Your task to perform on an android device: Search for logitech g502 on ebay.com, select the first entry, add it to the cart, then select checkout. Image 0: 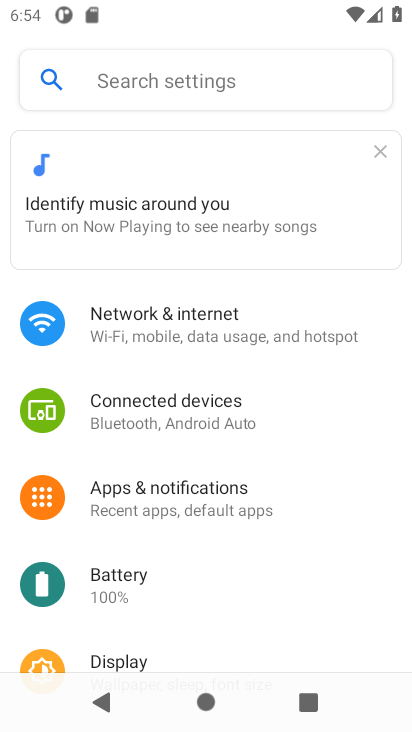
Step 0: press home button
Your task to perform on an android device: Search for logitech g502 on ebay.com, select the first entry, add it to the cart, then select checkout. Image 1: 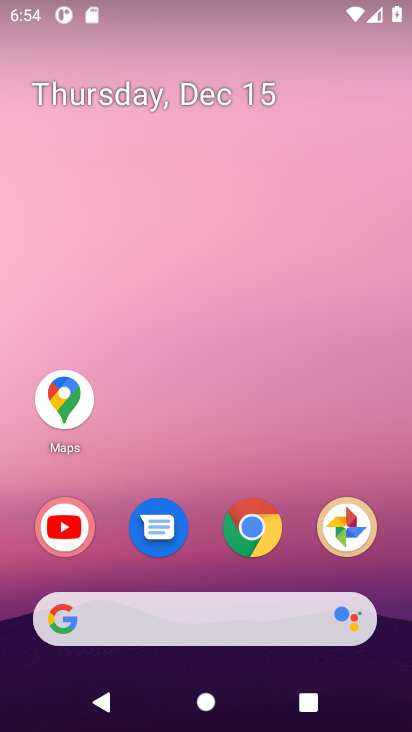
Step 1: click (267, 530)
Your task to perform on an android device: Search for logitech g502 on ebay.com, select the first entry, add it to the cart, then select checkout. Image 2: 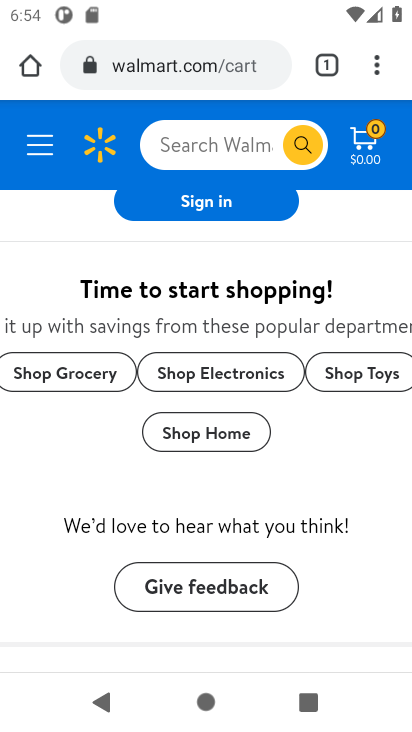
Step 2: click (209, 151)
Your task to perform on an android device: Search for logitech g502 on ebay.com, select the first entry, add it to the cart, then select checkout. Image 3: 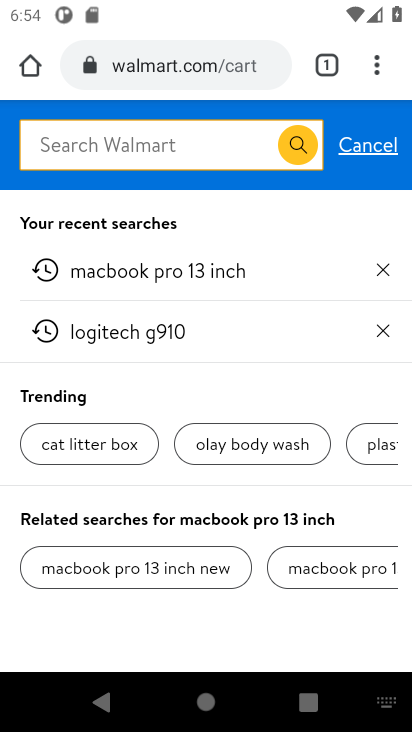
Step 3: click (186, 51)
Your task to perform on an android device: Search for logitech g502 on ebay.com, select the first entry, add it to the cart, then select checkout. Image 4: 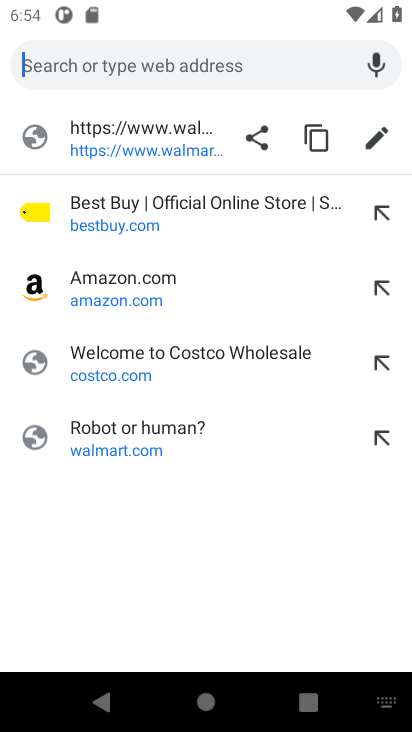
Step 4: type "ebay"
Your task to perform on an android device: Search for logitech g502 on ebay.com, select the first entry, add it to the cart, then select checkout. Image 5: 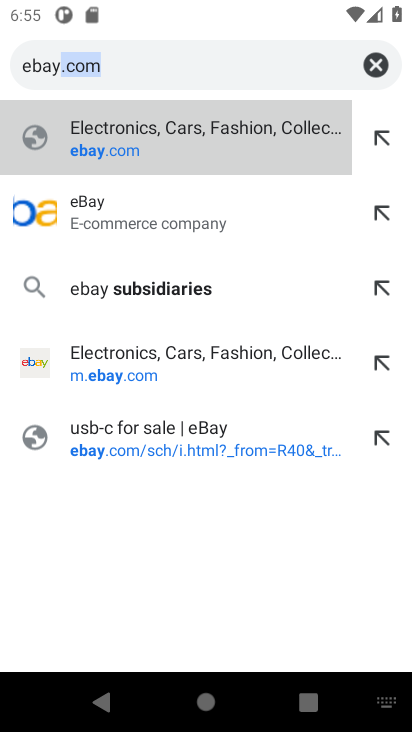
Step 5: click (121, 154)
Your task to perform on an android device: Search for logitech g502 on ebay.com, select the first entry, add it to the cart, then select checkout. Image 6: 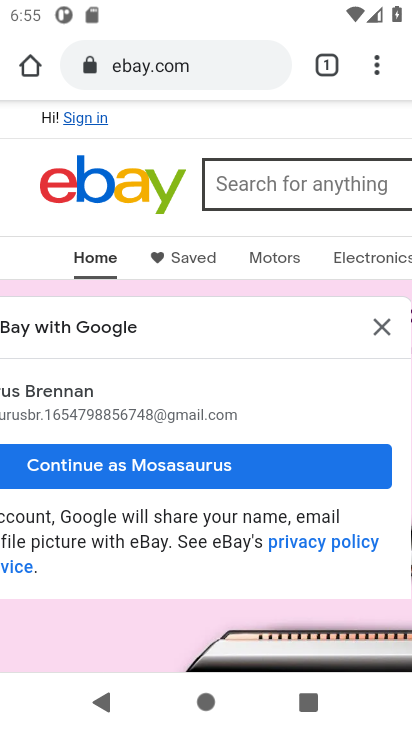
Step 6: click (241, 180)
Your task to perform on an android device: Search for logitech g502 on ebay.com, select the first entry, add it to the cart, then select checkout. Image 7: 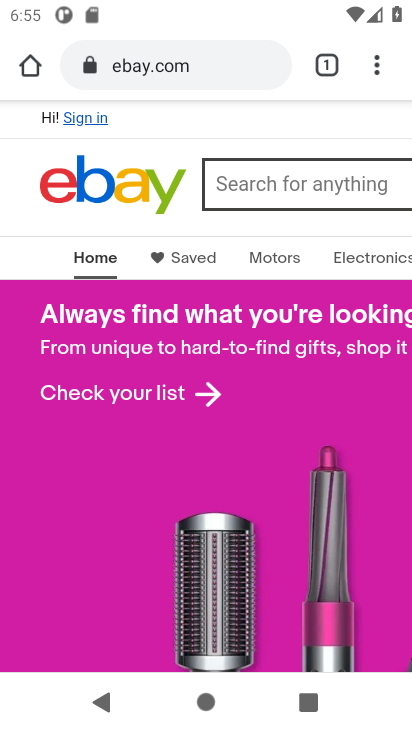
Step 7: type "logitech g502"
Your task to perform on an android device: Search for logitech g502 on ebay.com, select the first entry, add it to the cart, then select checkout. Image 8: 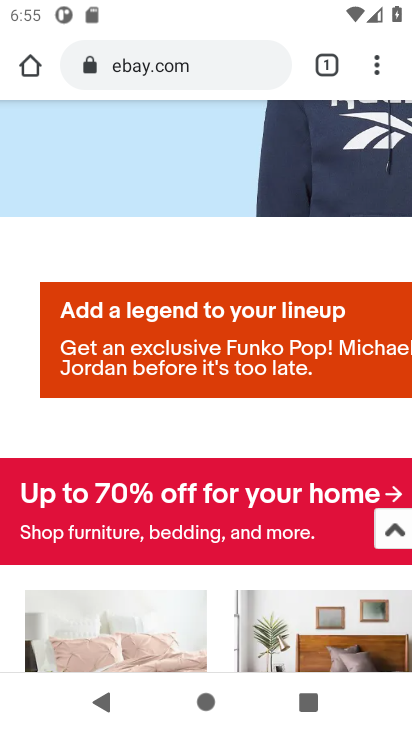
Step 8: drag from (206, 262) to (254, 725)
Your task to perform on an android device: Search for logitech g502 on ebay.com, select the first entry, add it to the cart, then select checkout. Image 9: 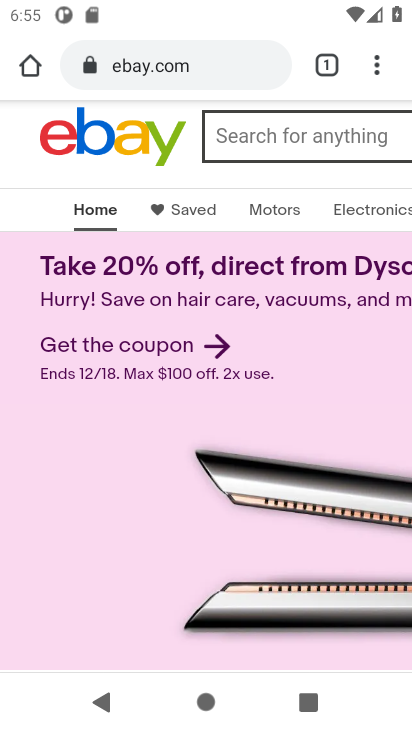
Step 9: click (261, 146)
Your task to perform on an android device: Search for logitech g502 on ebay.com, select the first entry, add it to the cart, then select checkout. Image 10: 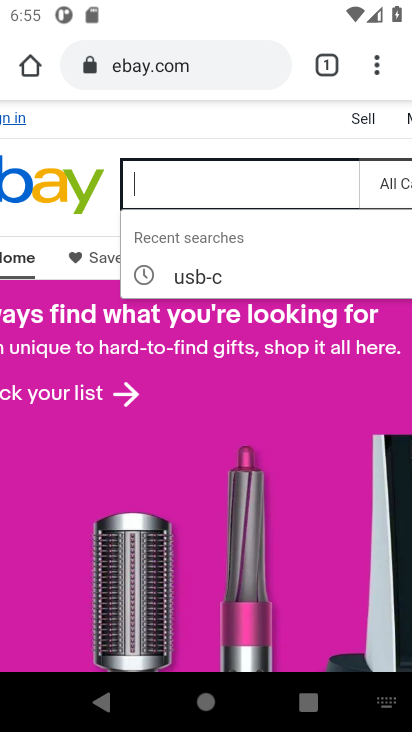
Step 10: type "logitech g502"
Your task to perform on an android device: Search for logitech g502 on ebay.com, select the first entry, add it to the cart, then select checkout. Image 11: 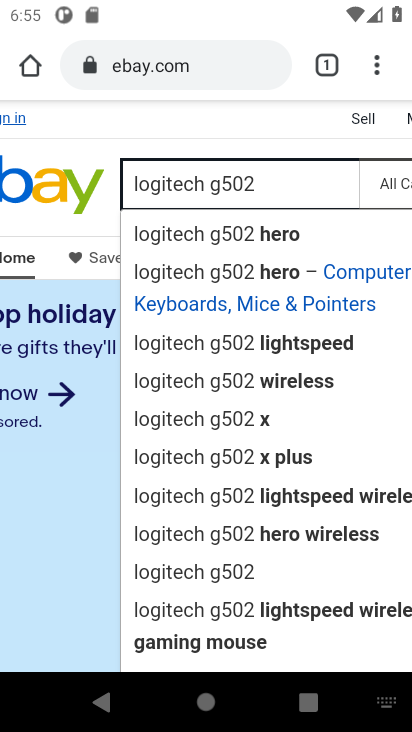
Step 11: click (89, 222)
Your task to perform on an android device: Search for logitech g502 on ebay.com, select the first entry, add it to the cart, then select checkout. Image 12: 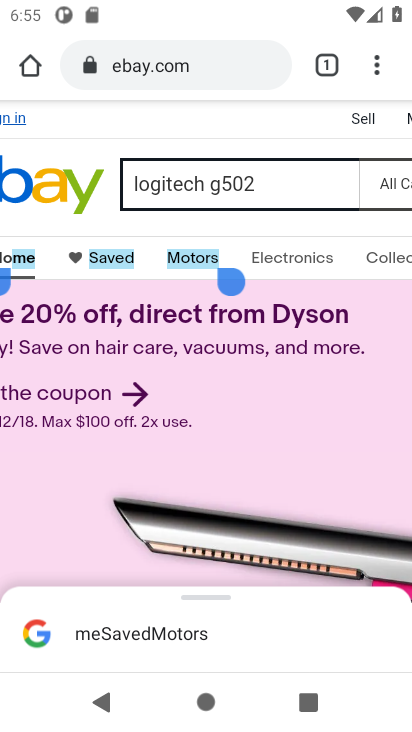
Step 12: drag from (270, 234) to (190, 118)
Your task to perform on an android device: Search for logitech g502 on ebay.com, select the first entry, add it to the cart, then select checkout. Image 13: 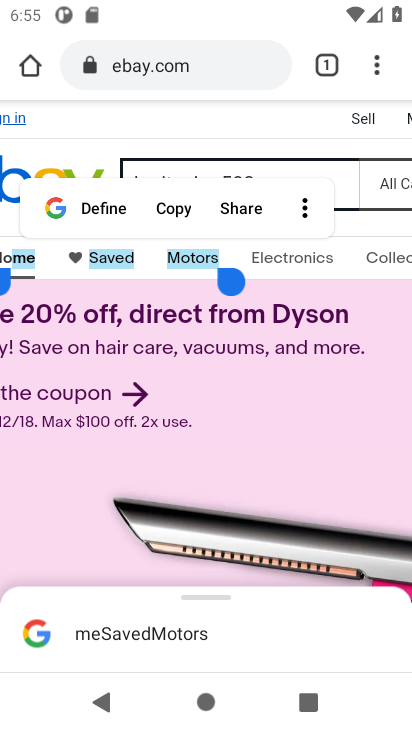
Step 13: click (190, 118)
Your task to perform on an android device: Search for logitech g502 on ebay.com, select the first entry, add it to the cart, then select checkout. Image 14: 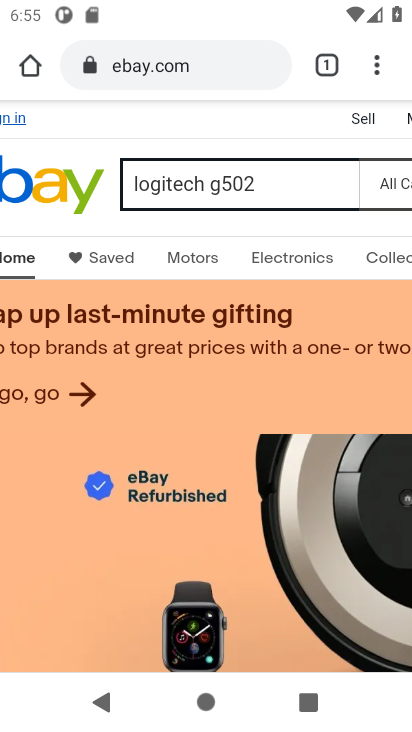
Step 14: click (97, 145)
Your task to perform on an android device: Search for logitech g502 on ebay.com, select the first entry, add it to the cart, then select checkout. Image 15: 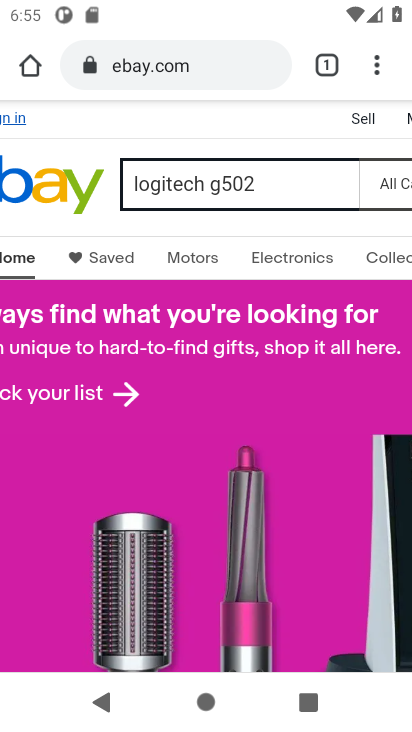
Step 15: drag from (355, 226) to (0, 227)
Your task to perform on an android device: Search for logitech g502 on ebay.com, select the first entry, add it to the cart, then select checkout. Image 16: 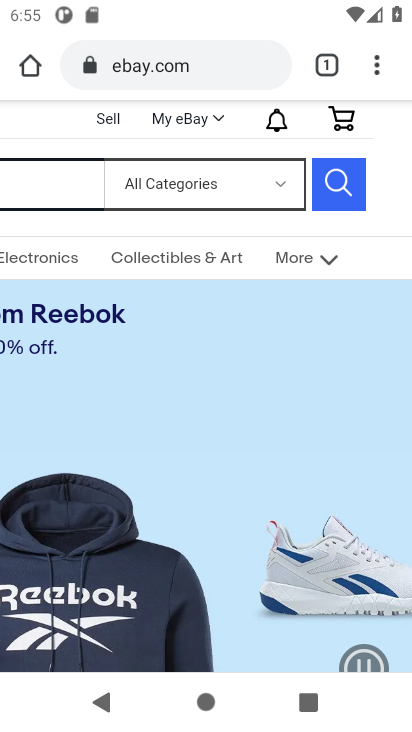
Step 16: click (336, 192)
Your task to perform on an android device: Search for logitech g502 on ebay.com, select the first entry, add it to the cart, then select checkout. Image 17: 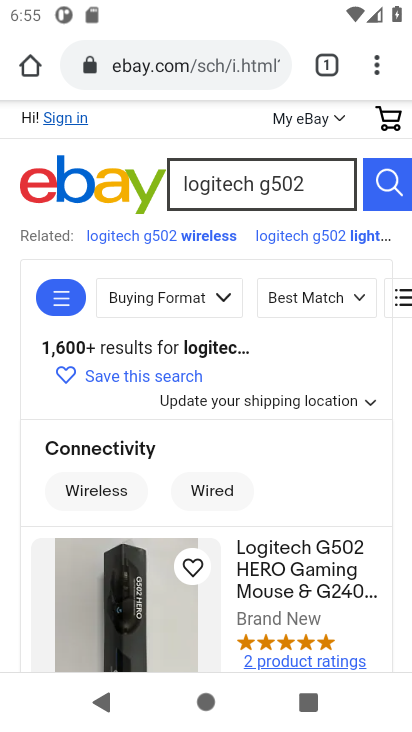
Step 17: click (263, 565)
Your task to perform on an android device: Search for logitech g502 on ebay.com, select the first entry, add it to the cart, then select checkout. Image 18: 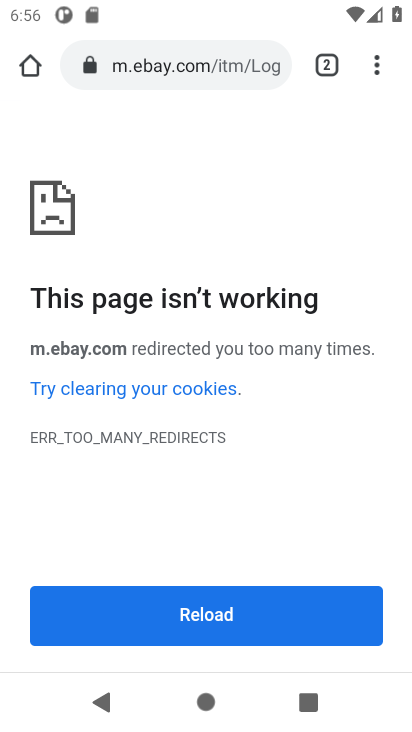
Step 18: task complete